Your task to perform on an android device: When is my next meeting? Image 0: 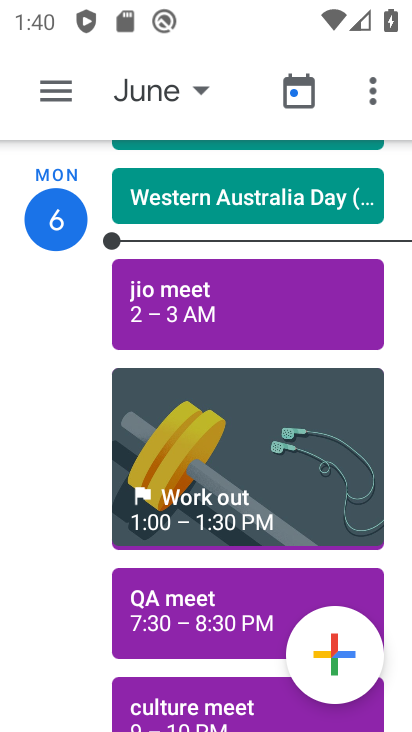
Step 0: drag from (168, 563) to (182, 258)
Your task to perform on an android device: When is my next meeting? Image 1: 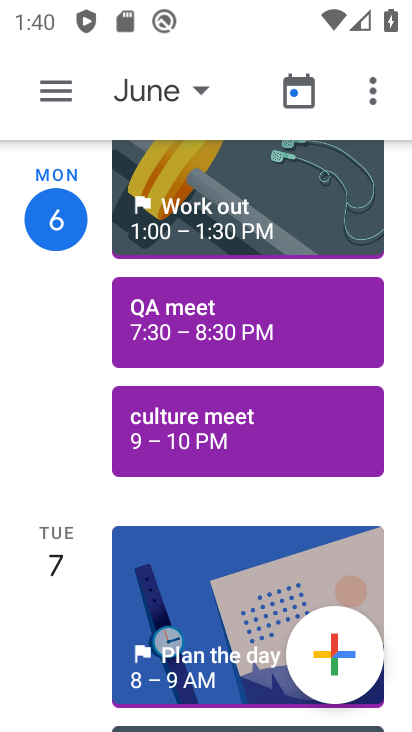
Step 1: task complete